Your task to perform on an android device: turn off location Image 0: 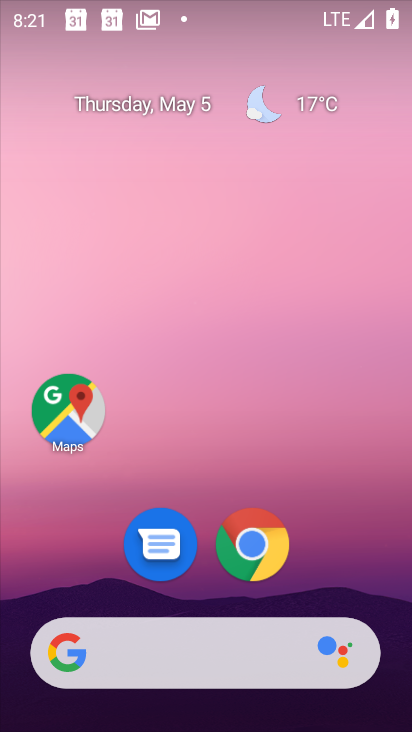
Step 0: drag from (347, 552) to (337, 89)
Your task to perform on an android device: turn off location Image 1: 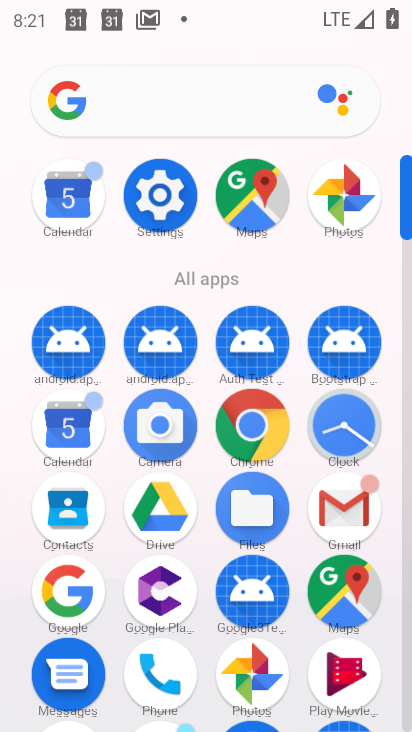
Step 1: click (168, 193)
Your task to perform on an android device: turn off location Image 2: 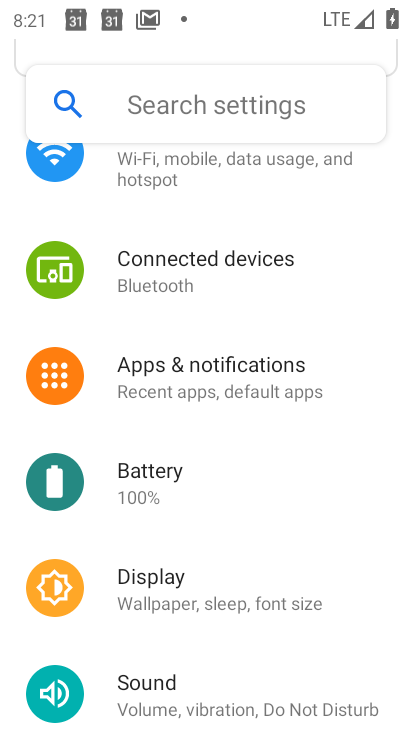
Step 2: drag from (226, 264) to (198, 509)
Your task to perform on an android device: turn off location Image 3: 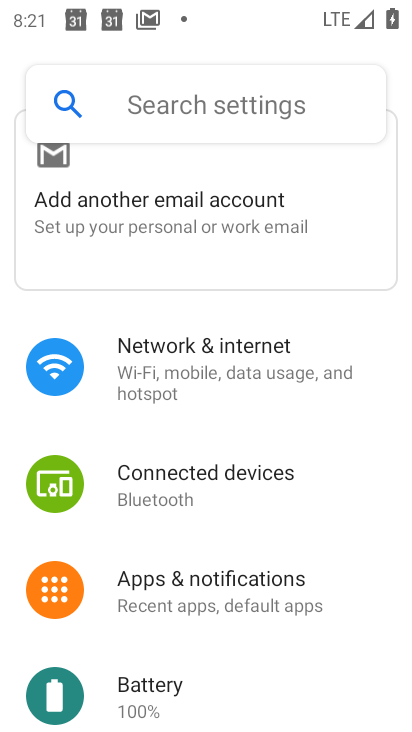
Step 3: drag from (182, 584) to (222, 444)
Your task to perform on an android device: turn off location Image 4: 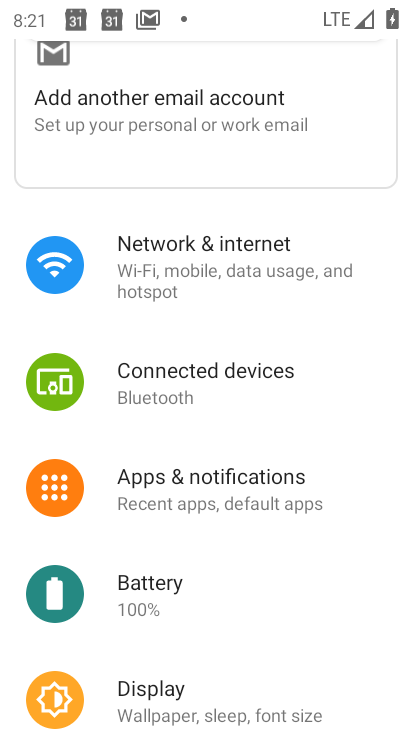
Step 4: click (203, 462)
Your task to perform on an android device: turn off location Image 5: 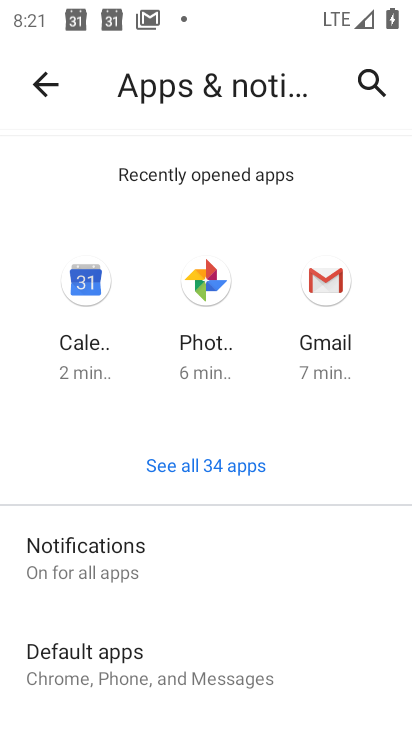
Step 5: click (167, 553)
Your task to perform on an android device: turn off location Image 6: 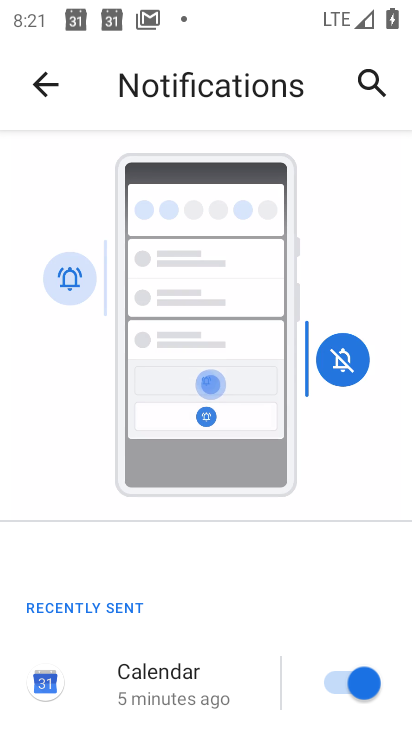
Step 6: click (49, 107)
Your task to perform on an android device: turn off location Image 7: 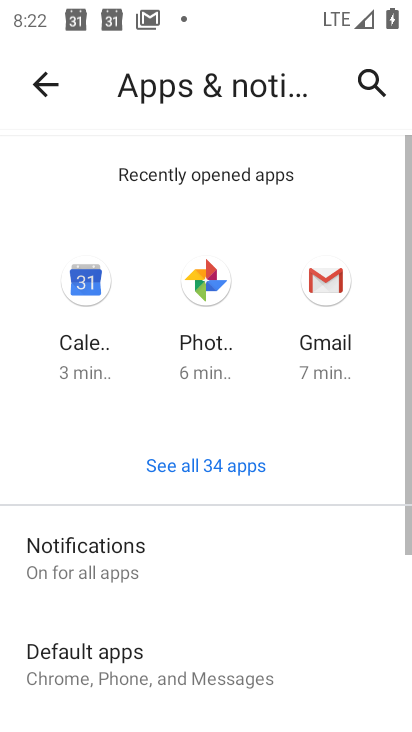
Step 7: drag from (142, 527) to (166, 244)
Your task to perform on an android device: turn off location Image 8: 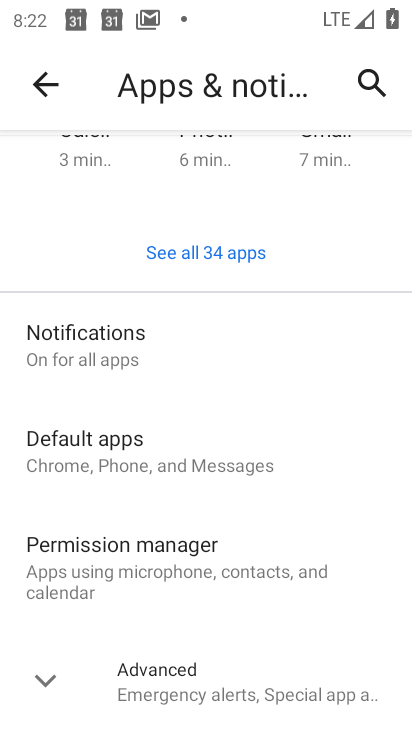
Step 8: click (160, 650)
Your task to perform on an android device: turn off location Image 9: 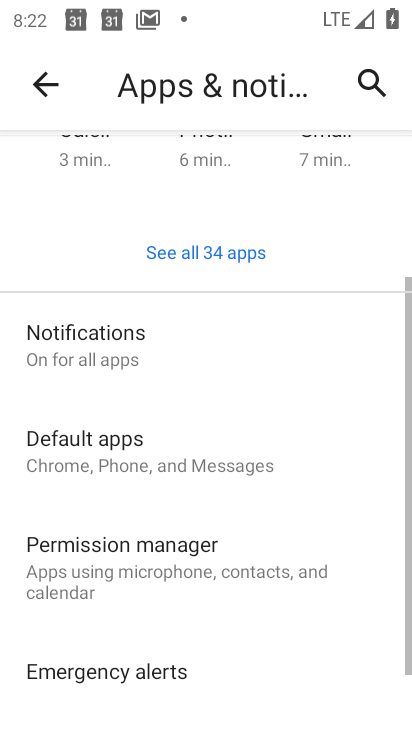
Step 9: drag from (160, 650) to (172, 296)
Your task to perform on an android device: turn off location Image 10: 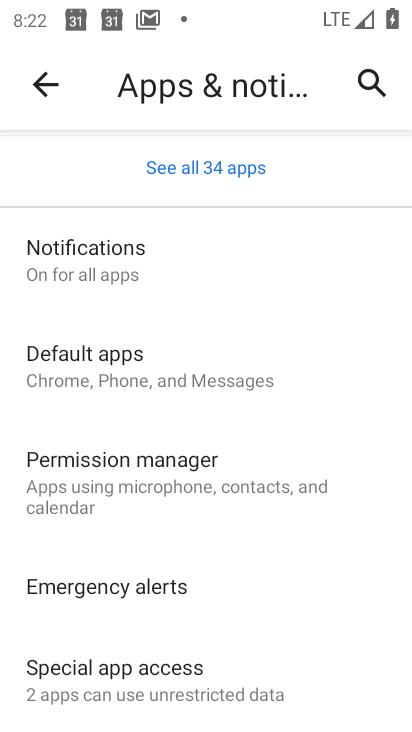
Step 10: click (43, 75)
Your task to perform on an android device: turn off location Image 11: 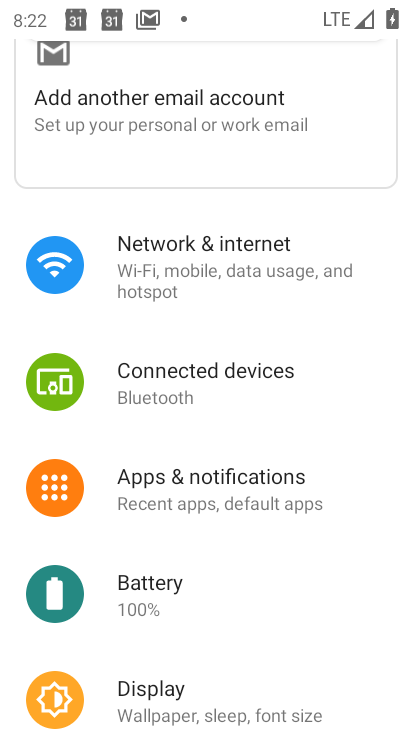
Step 11: drag from (187, 637) to (225, 292)
Your task to perform on an android device: turn off location Image 12: 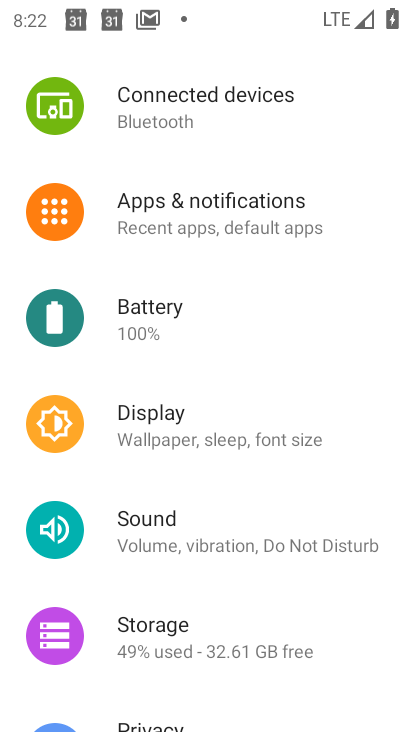
Step 12: drag from (209, 702) to (228, 349)
Your task to perform on an android device: turn off location Image 13: 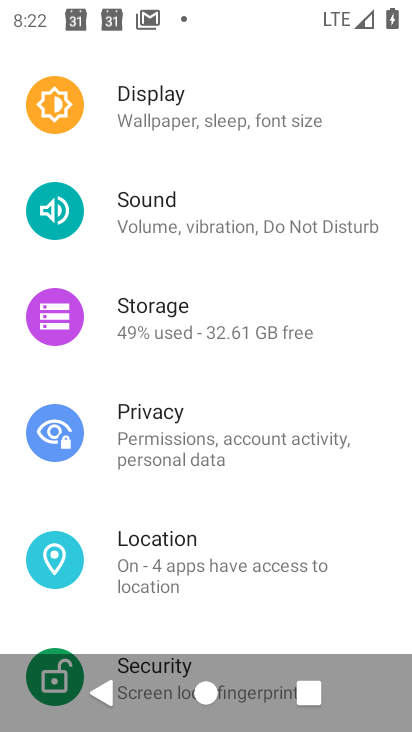
Step 13: click (214, 553)
Your task to perform on an android device: turn off location Image 14: 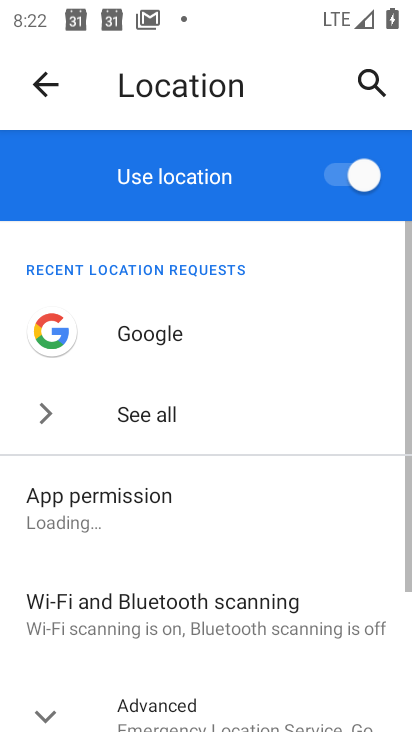
Step 14: click (346, 176)
Your task to perform on an android device: turn off location Image 15: 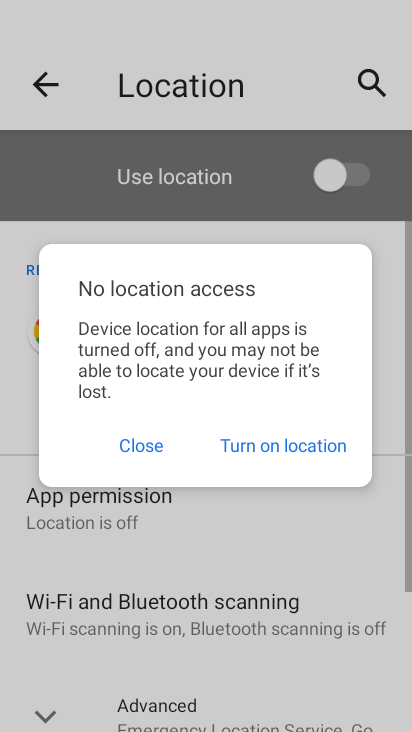
Step 15: task complete